Your task to perform on an android device: What is the news today? Image 0: 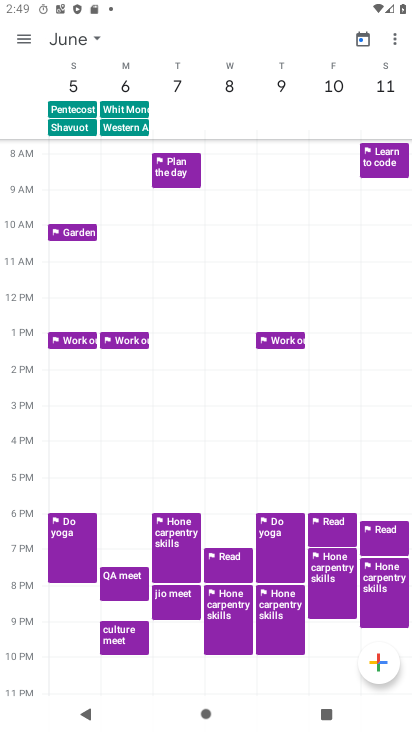
Step 0: press home button
Your task to perform on an android device: What is the news today? Image 1: 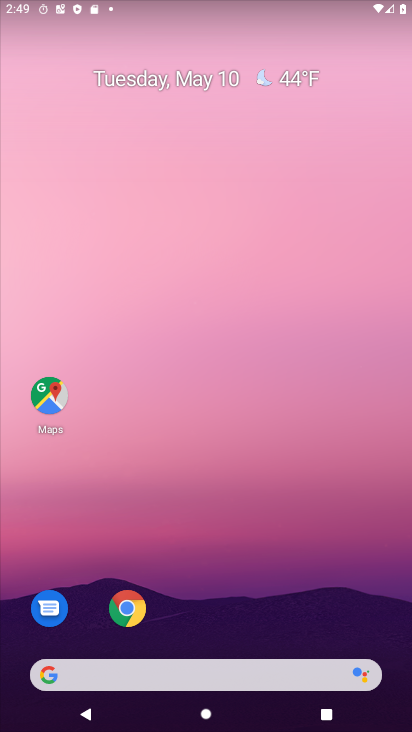
Step 1: task complete